Your task to perform on an android device: toggle priority inbox in the gmail app Image 0: 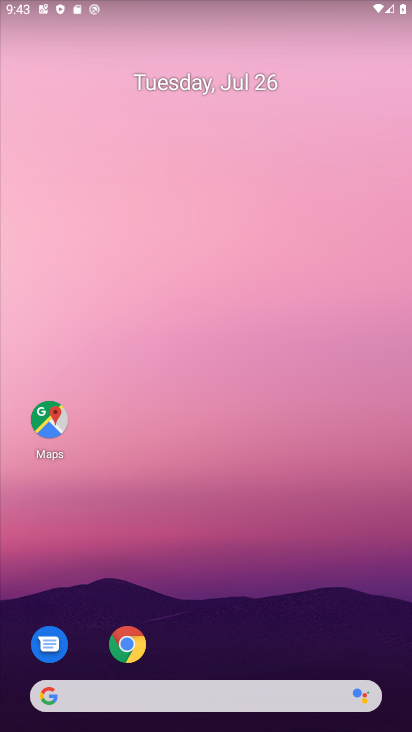
Step 0: drag from (212, 634) to (220, 224)
Your task to perform on an android device: toggle priority inbox in the gmail app Image 1: 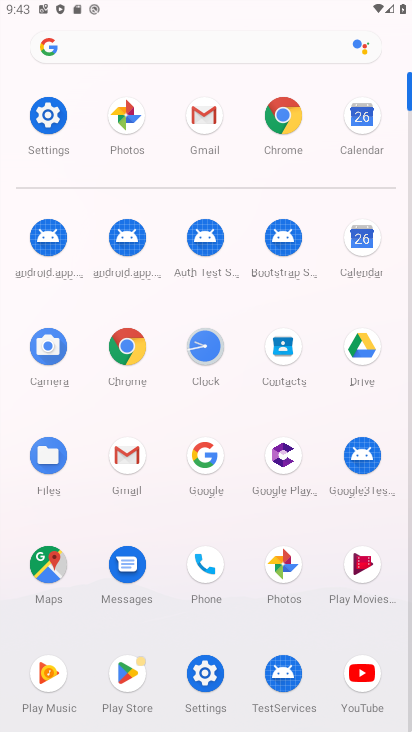
Step 1: click (136, 465)
Your task to perform on an android device: toggle priority inbox in the gmail app Image 2: 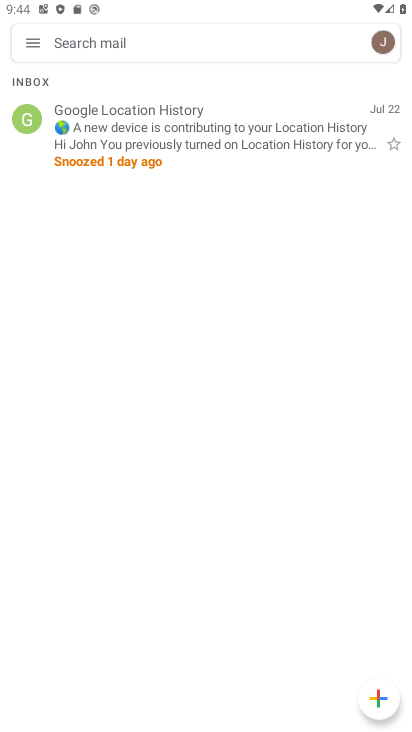
Step 2: click (35, 42)
Your task to perform on an android device: toggle priority inbox in the gmail app Image 3: 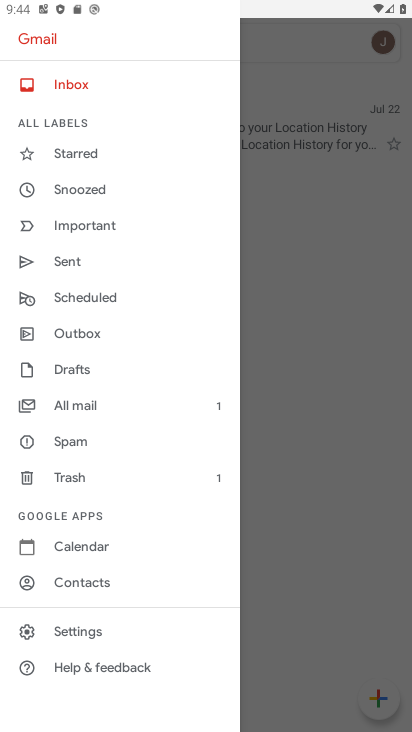
Step 3: click (89, 630)
Your task to perform on an android device: toggle priority inbox in the gmail app Image 4: 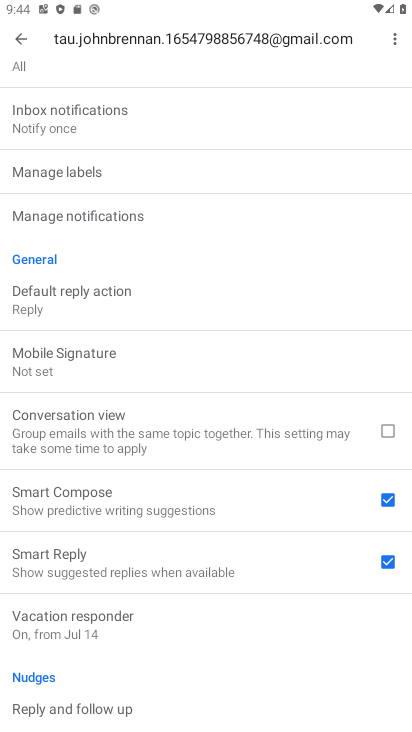
Step 4: drag from (91, 597) to (89, 304)
Your task to perform on an android device: toggle priority inbox in the gmail app Image 5: 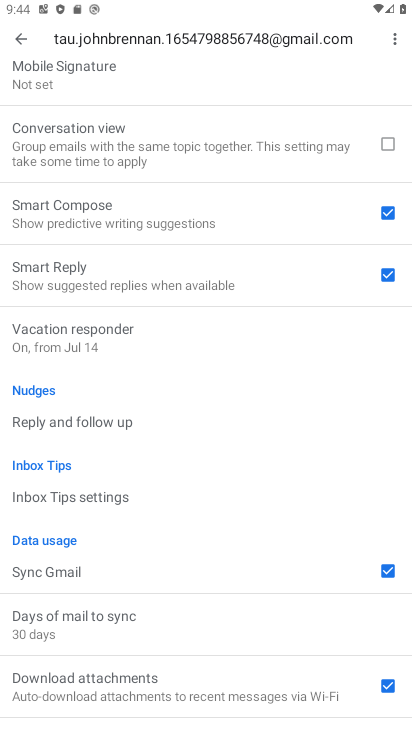
Step 5: drag from (107, 348) to (129, 730)
Your task to perform on an android device: toggle priority inbox in the gmail app Image 6: 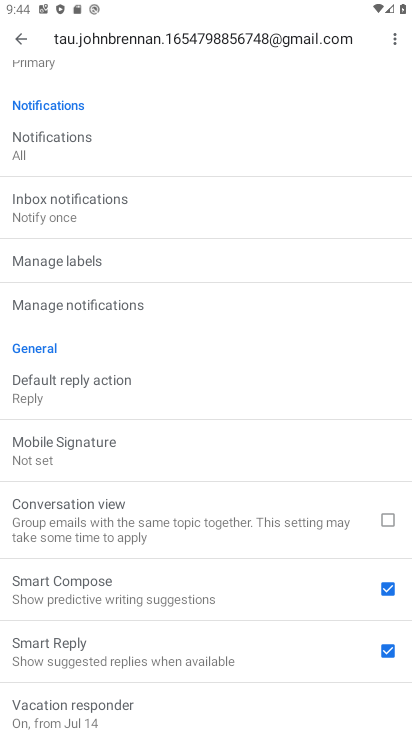
Step 6: drag from (104, 202) to (90, 434)
Your task to perform on an android device: toggle priority inbox in the gmail app Image 7: 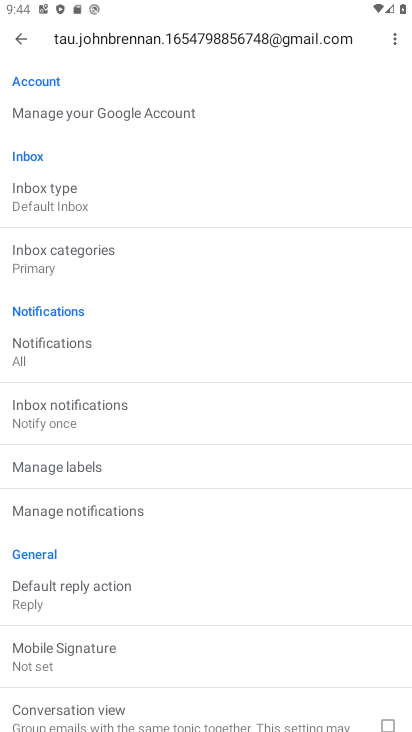
Step 7: click (77, 193)
Your task to perform on an android device: toggle priority inbox in the gmail app Image 8: 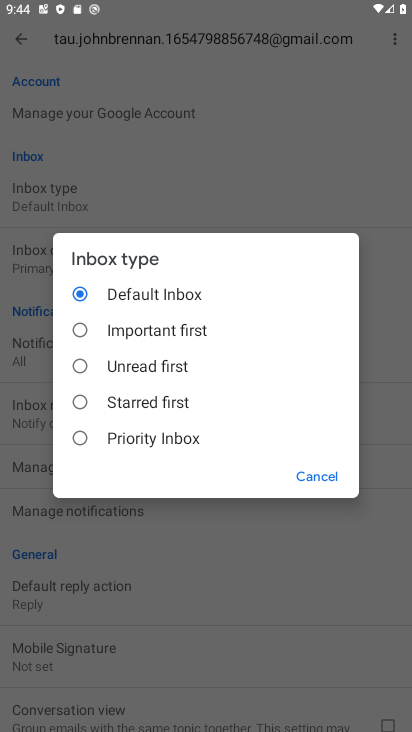
Step 8: click (113, 436)
Your task to perform on an android device: toggle priority inbox in the gmail app Image 9: 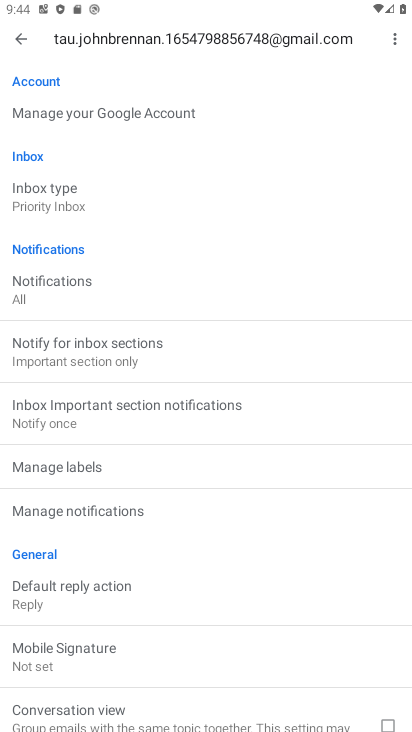
Step 9: task complete